Your task to perform on an android device: Turn off the flashlight Image 0: 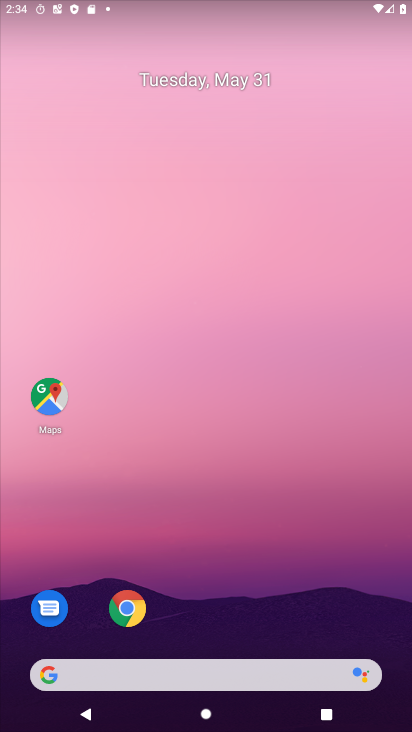
Step 0: drag from (226, 625) to (249, 141)
Your task to perform on an android device: Turn off the flashlight Image 1: 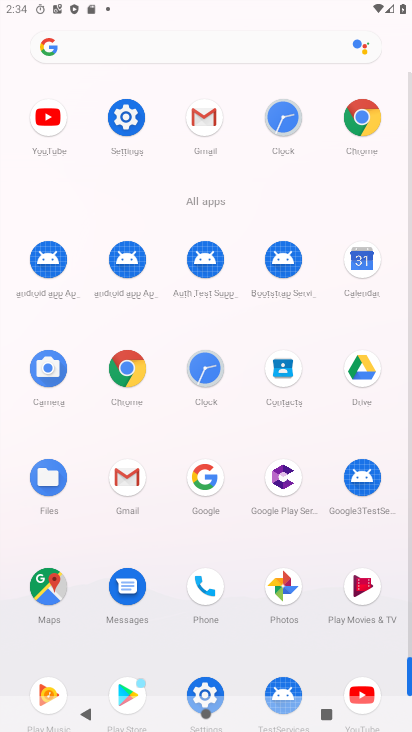
Step 1: click (127, 134)
Your task to perform on an android device: Turn off the flashlight Image 2: 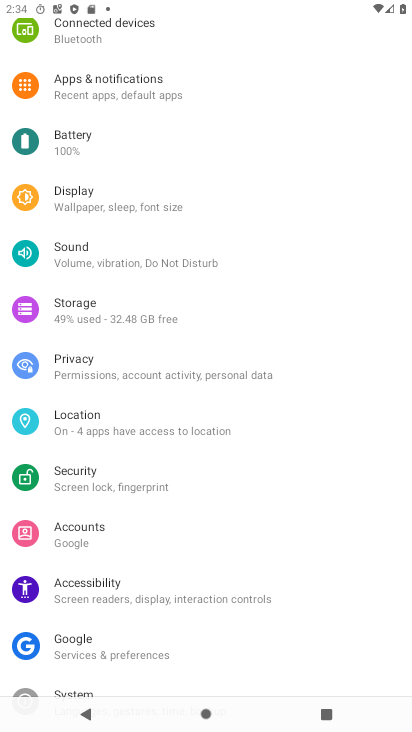
Step 2: drag from (173, 215) to (158, 512)
Your task to perform on an android device: Turn off the flashlight Image 3: 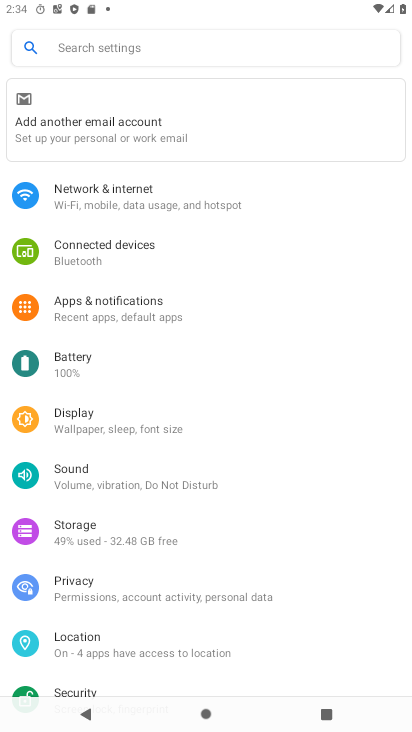
Step 3: click (143, 50)
Your task to perform on an android device: Turn off the flashlight Image 4: 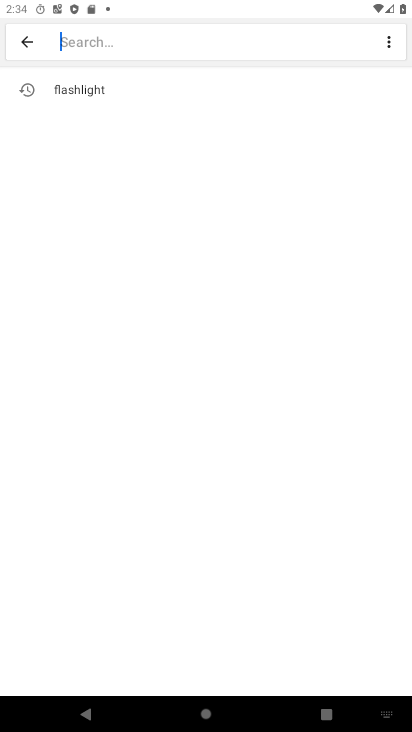
Step 4: type "flashlight"
Your task to perform on an android device: Turn off the flashlight Image 5: 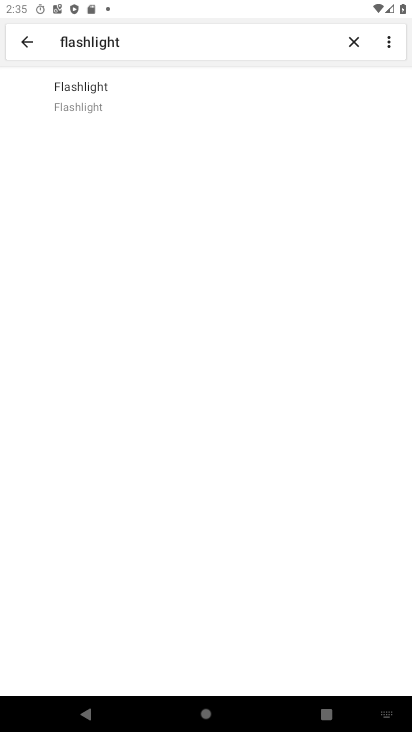
Step 5: click (134, 102)
Your task to perform on an android device: Turn off the flashlight Image 6: 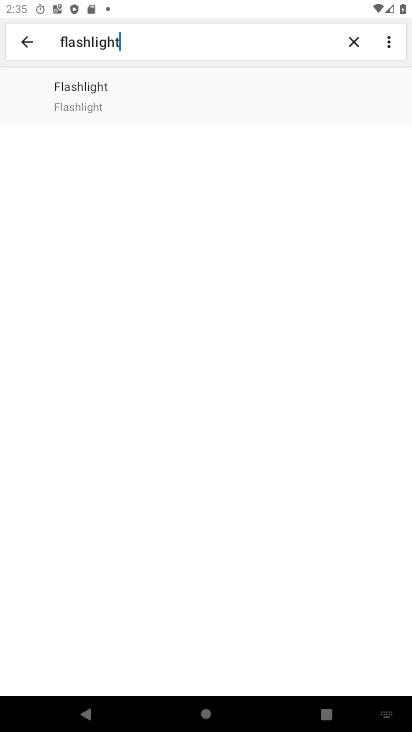
Step 6: click (134, 103)
Your task to perform on an android device: Turn off the flashlight Image 7: 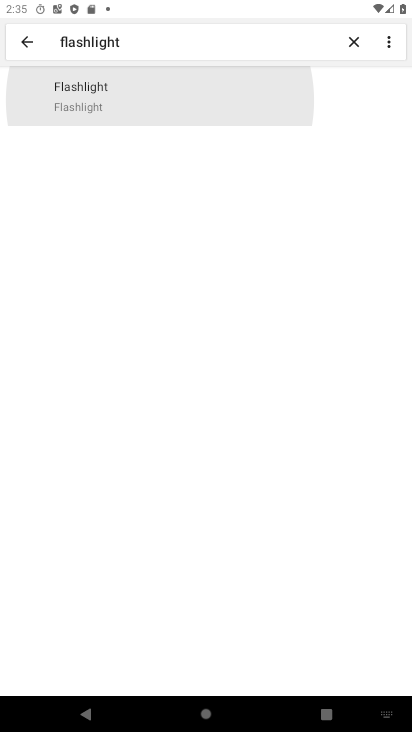
Step 7: click (134, 103)
Your task to perform on an android device: Turn off the flashlight Image 8: 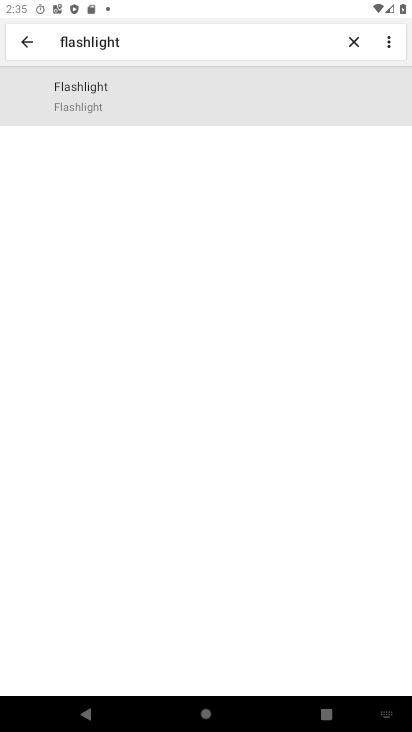
Step 8: click (134, 103)
Your task to perform on an android device: Turn off the flashlight Image 9: 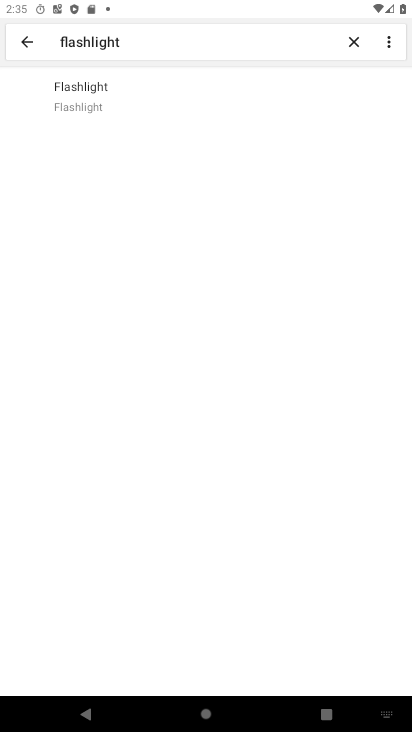
Step 9: click (134, 100)
Your task to perform on an android device: Turn off the flashlight Image 10: 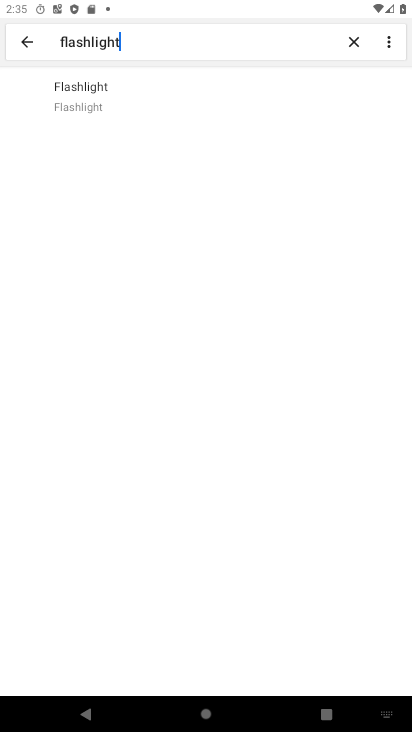
Step 10: task complete